Your task to perform on an android device: Go to Google maps Image 0: 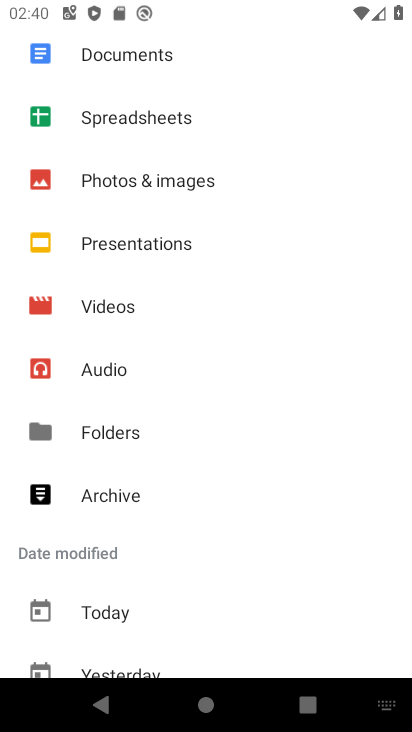
Step 0: press home button
Your task to perform on an android device: Go to Google maps Image 1: 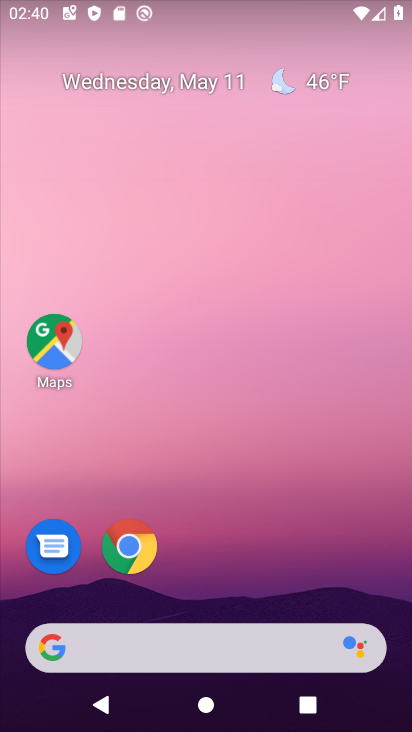
Step 1: drag from (212, 550) to (320, 0)
Your task to perform on an android device: Go to Google maps Image 2: 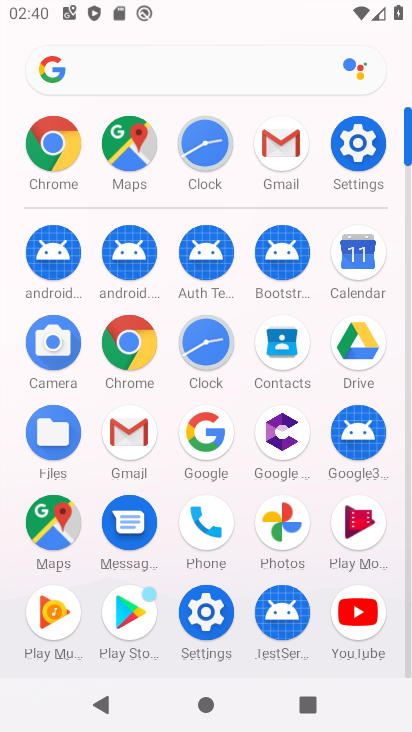
Step 2: click (53, 537)
Your task to perform on an android device: Go to Google maps Image 3: 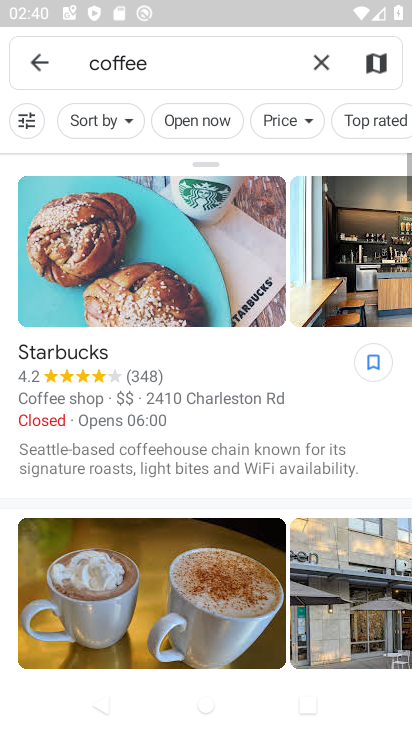
Step 3: task complete